Your task to perform on an android device: find snoozed emails in the gmail app Image 0: 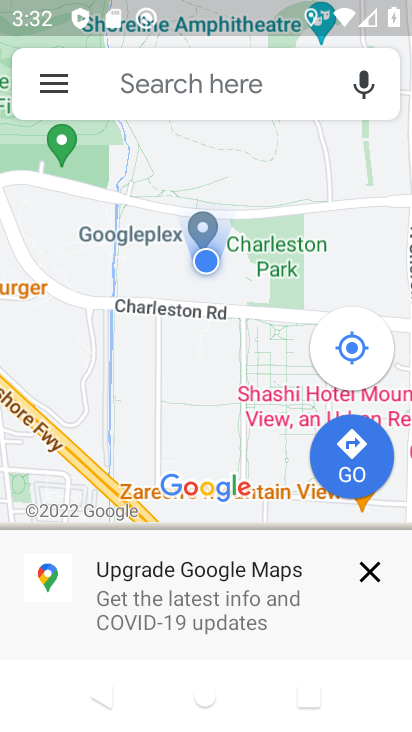
Step 0: press home button
Your task to perform on an android device: find snoozed emails in the gmail app Image 1: 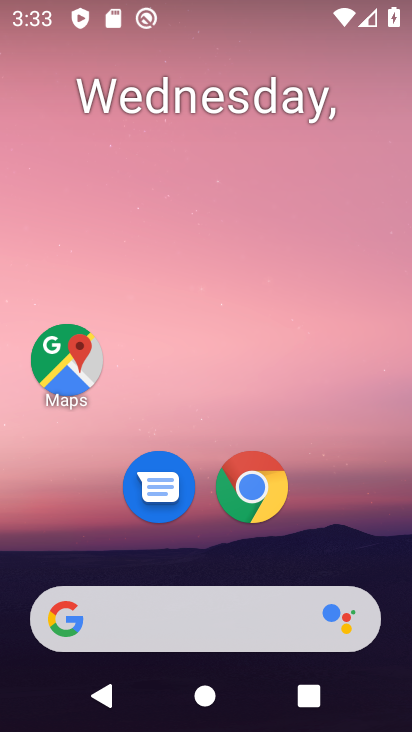
Step 1: drag from (390, 563) to (346, 172)
Your task to perform on an android device: find snoozed emails in the gmail app Image 2: 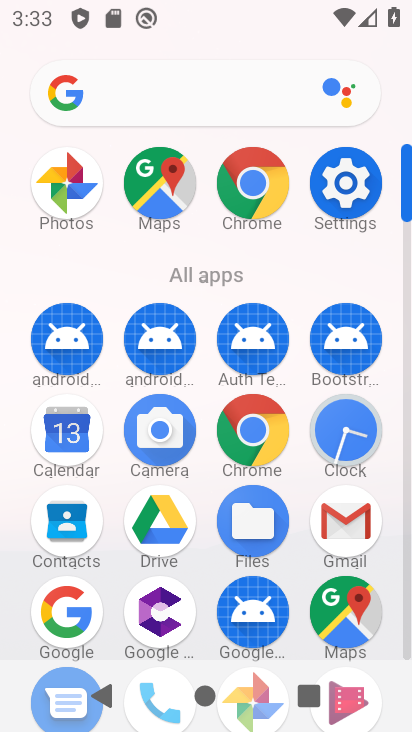
Step 2: click (342, 537)
Your task to perform on an android device: find snoozed emails in the gmail app Image 3: 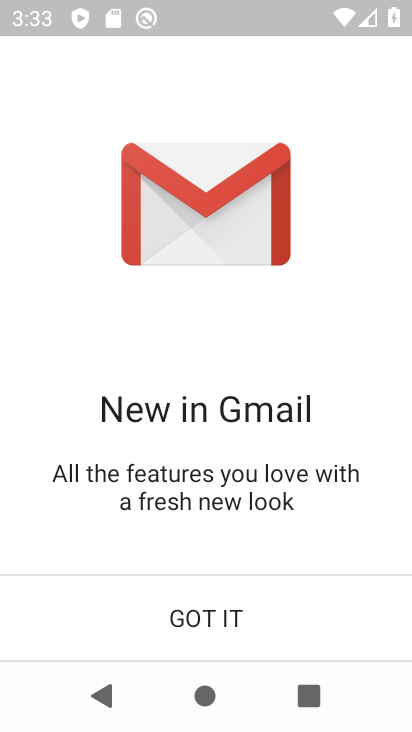
Step 3: click (249, 610)
Your task to perform on an android device: find snoozed emails in the gmail app Image 4: 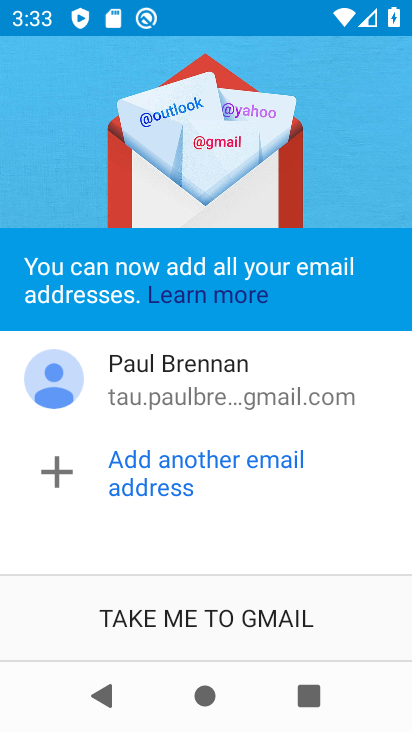
Step 4: click (249, 610)
Your task to perform on an android device: find snoozed emails in the gmail app Image 5: 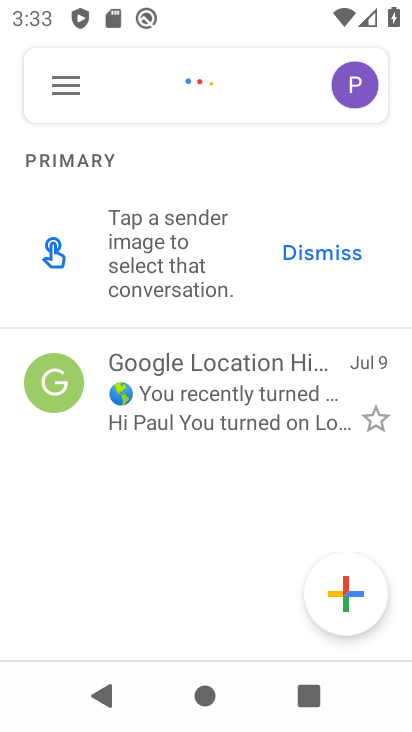
Step 5: click (68, 77)
Your task to perform on an android device: find snoozed emails in the gmail app Image 6: 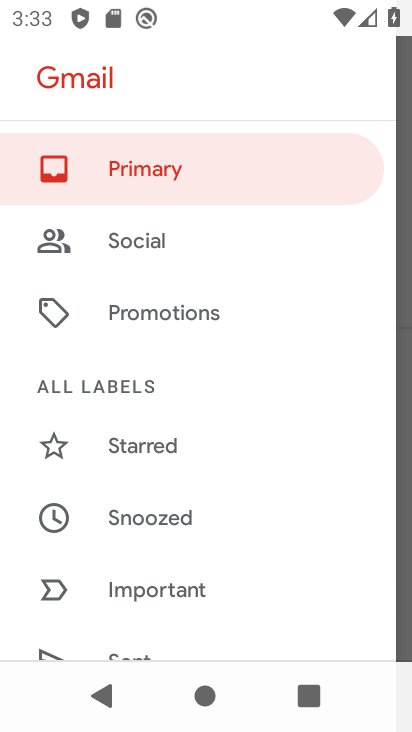
Step 6: click (142, 516)
Your task to perform on an android device: find snoozed emails in the gmail app Image 7: 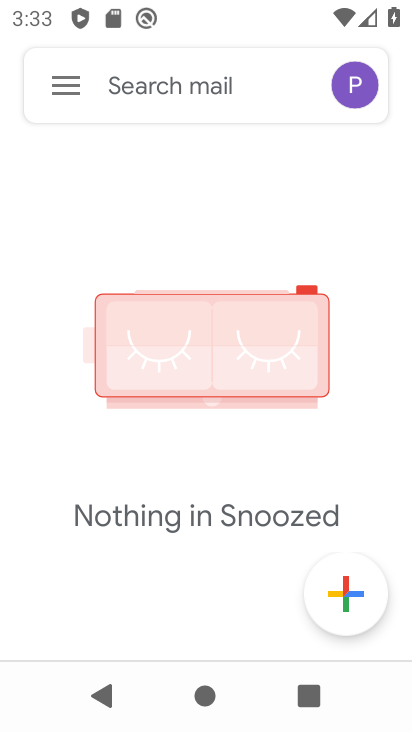
Step 7: task complete